Your task to perform on an android device: Is it going to rain tomorrow? Image 0: 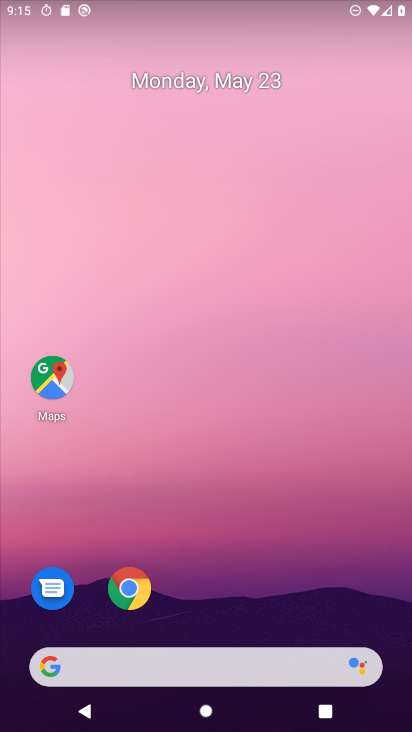
Step 0: drag from (3, 253) to (407, 227)
Your task to perform on an android device: Is it going to rain tomorrow? Image 1: 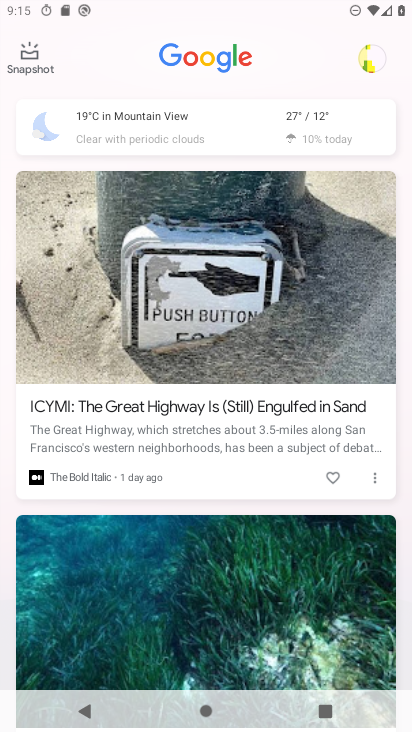
Step 1: click (301, 124)
Your task to perform on an android device: Is it going to rain tomorrow? Image 2: 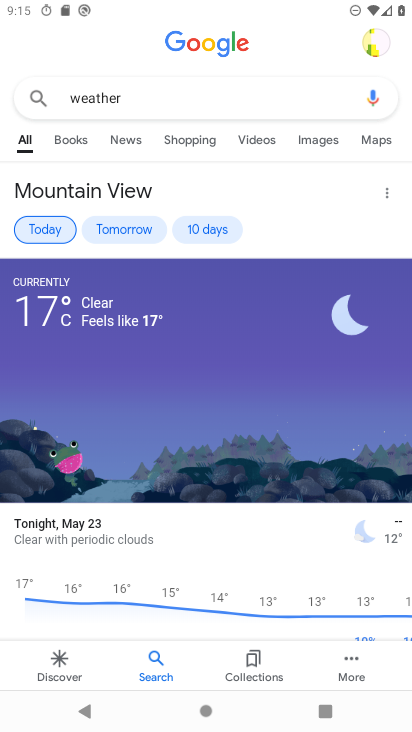
Step 2: click (118, 222)
Your task to perform on an android device: Is it going to rain tomorrow? Image 3: 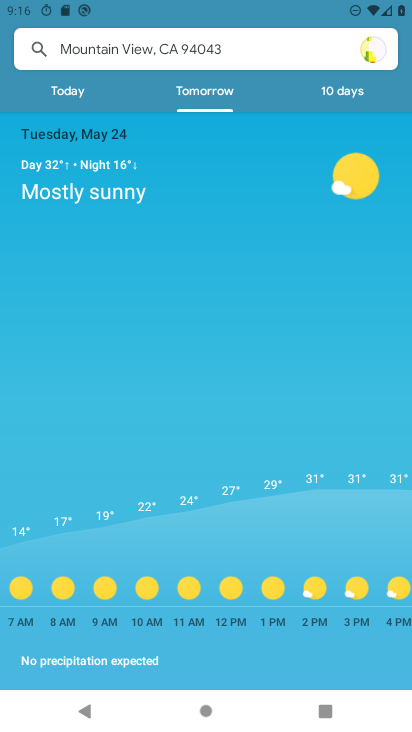
Step 3: task complete